Your task to perform on an android device: Go to accessibility settings Image 0: 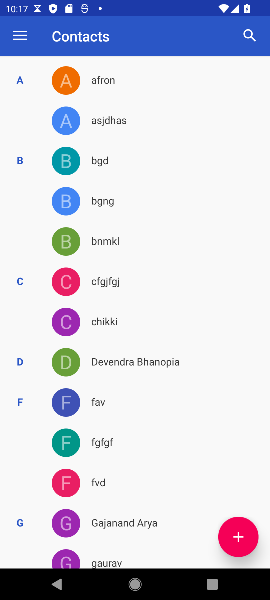
Step 0: press home button
Your task to perform on an android device: Go to accessibility settings Image 1: 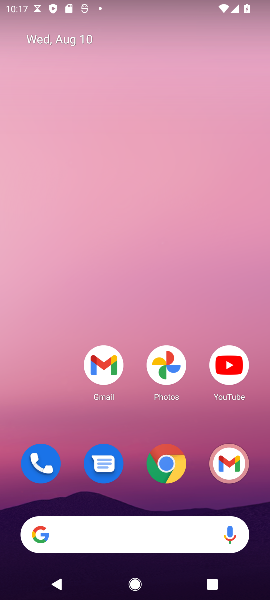
Step 1: drag from (33, 572) to (121, 206)
Your task to perform on an android device: Go to accessibility settings Image 2: 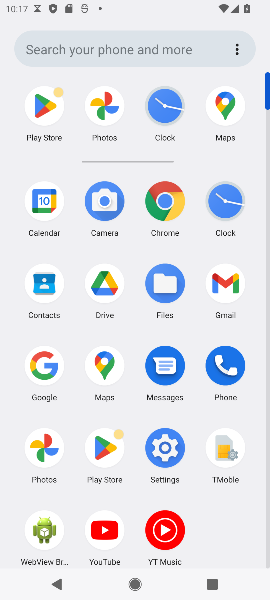
Step 2: click (155, 451)
Your task to perform on an android device: Go to accessibility settings Image 3: 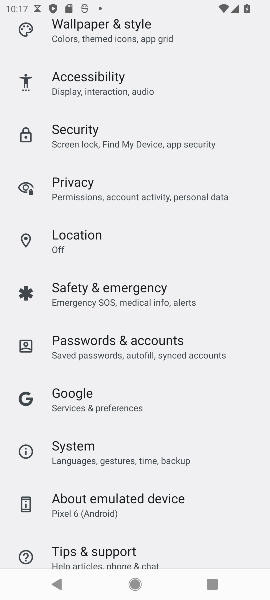
Step 3: click (92, 83)
Your task to perform on an android device: Go to accessibility settings Image 4: 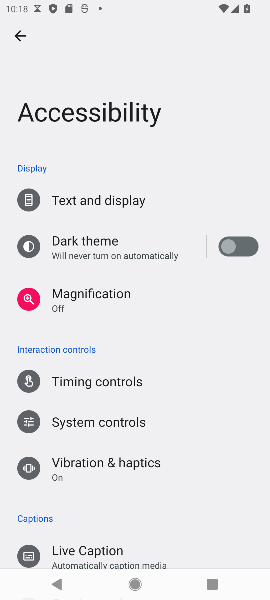
Step 4: task complete